Your task to perform on an android device: Open calendar and show me the third week of next month Image 0: 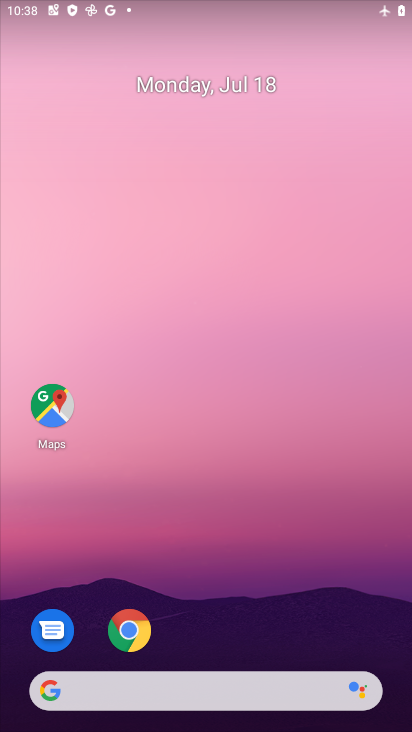
Step 0: drag from (338, 604) to (278, 219)
Your task to perform on an android device: Open calendar and show me the third week of next month Image 1: 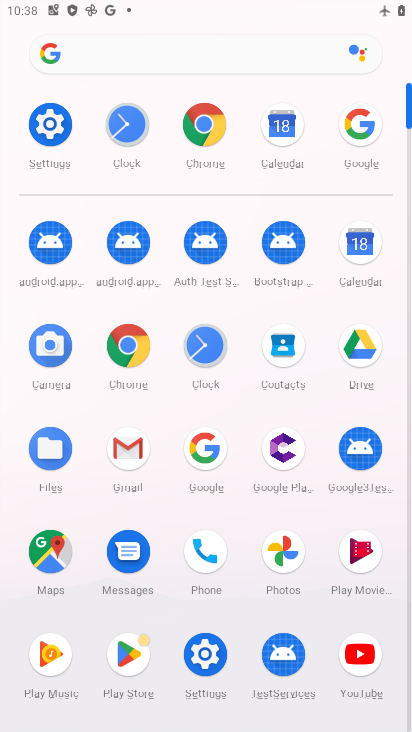
Step 1: click (349, 250)
Your task to perform on an android device: Open calendar and show me the third week of next month Image 2: 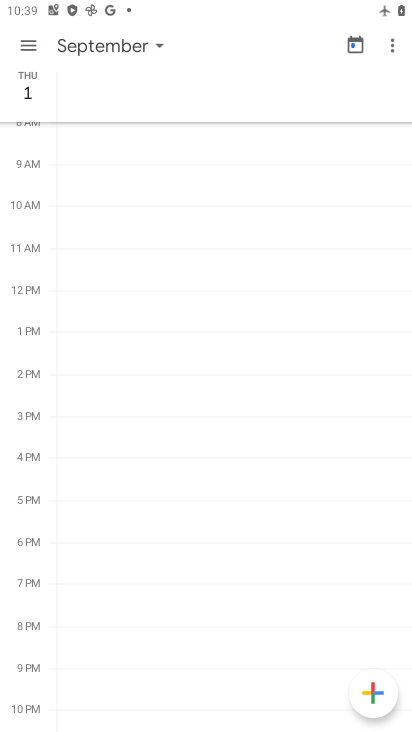
Step 2: click (96, 47)
Your task to perform on an android device: Open calendar and show me the third week of next month Image 3: 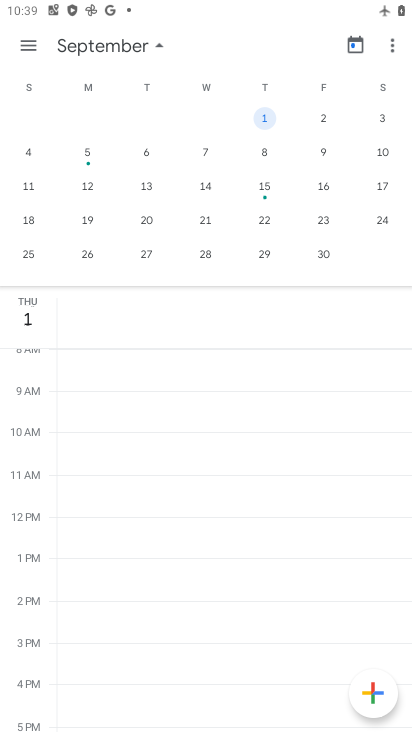
Step 3: drag from (381, 130) to (40, 157)
Your task to perform on an android device: Open calendar and show me the third week of next month Image 4: 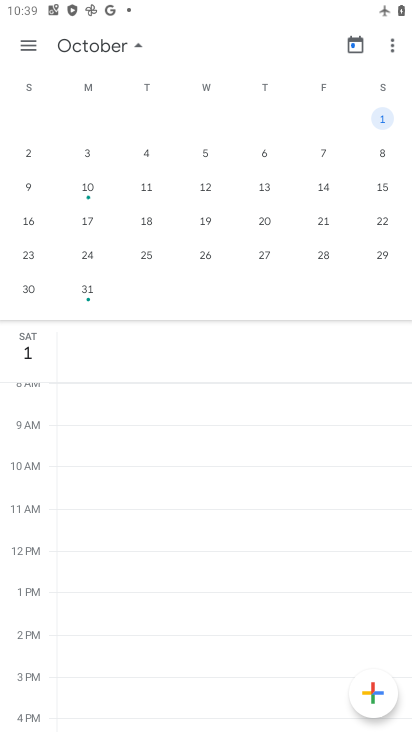
Step 4: click (25, 221)
Your task to perform on an android device: Open calendar and show me the third week of next month Image 5: 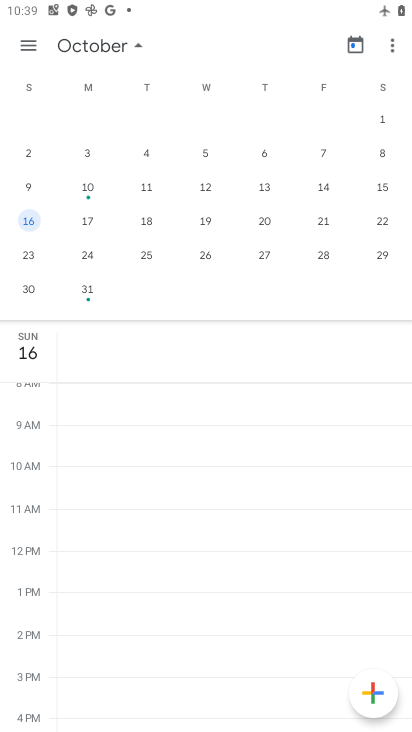
Step 5: task complete